Your task to perform on an android device: open app "Pluto TV - Live TV and Movies" (install if not already installed) Image 0: 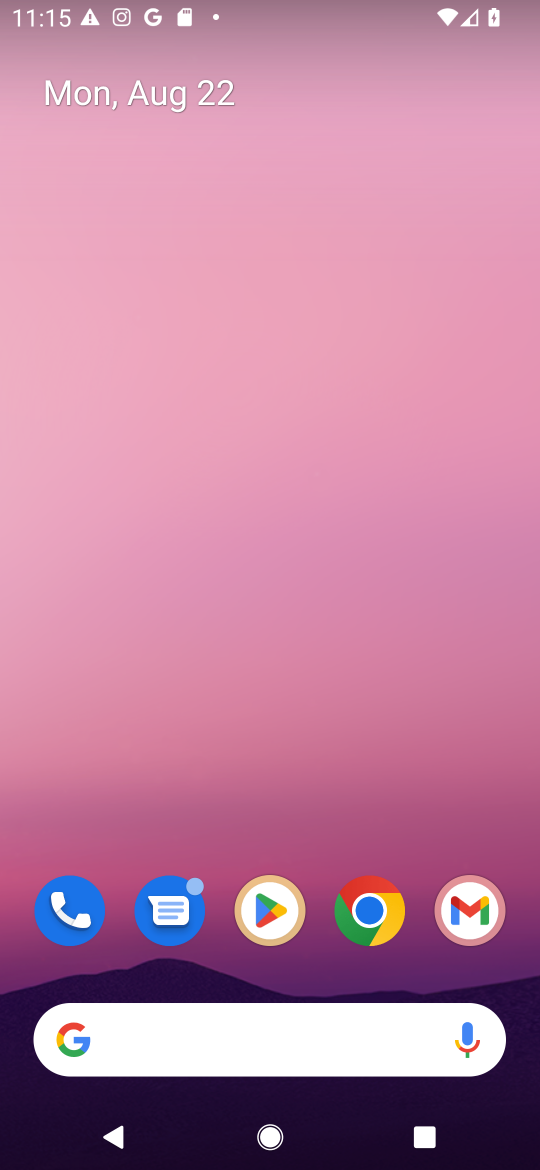
Step 0: click (278, 908)
Your task to perform on an android device: open app "Pluto TV - Live TV and Movies" (install if not already installed) Image 1: 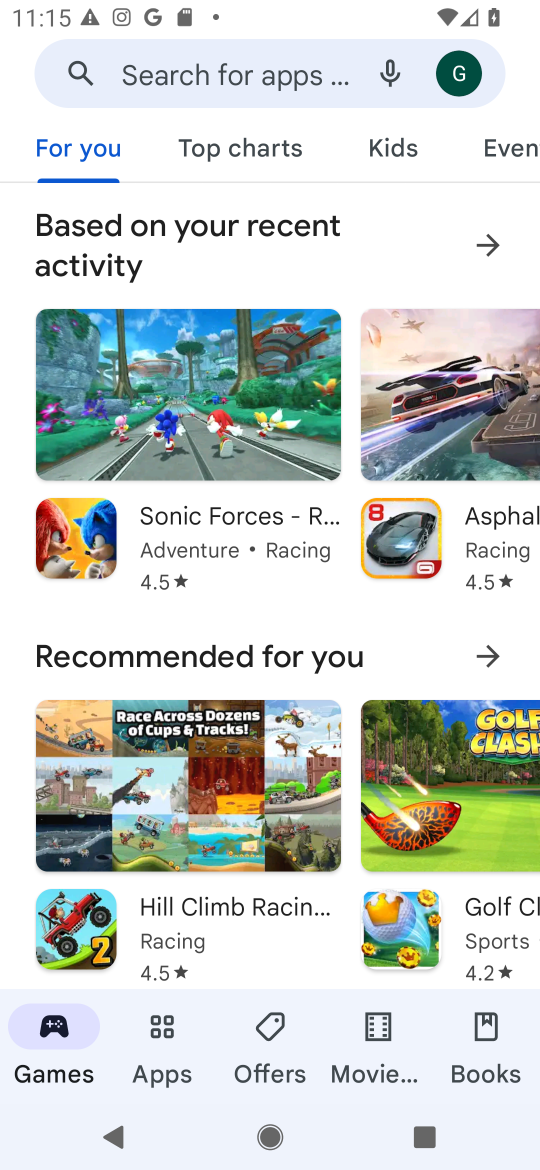
Step 1: click (249, 68)
Your task to perform on an android device: open app "Pluto TV - Live TV and Movies" (install if not already installed) Image 2: 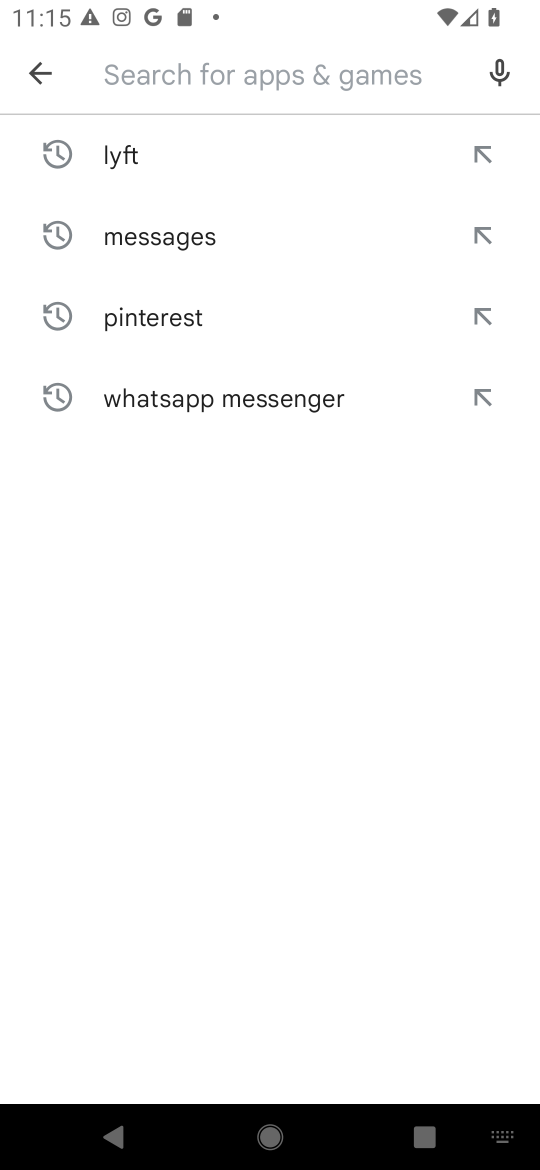
Step 2: type "Pluto TV - Live TV and Movies"
Your task to perform on an android device: open app "Pluto TV - Live TV and Movies" (install if not already installed) Image 3: 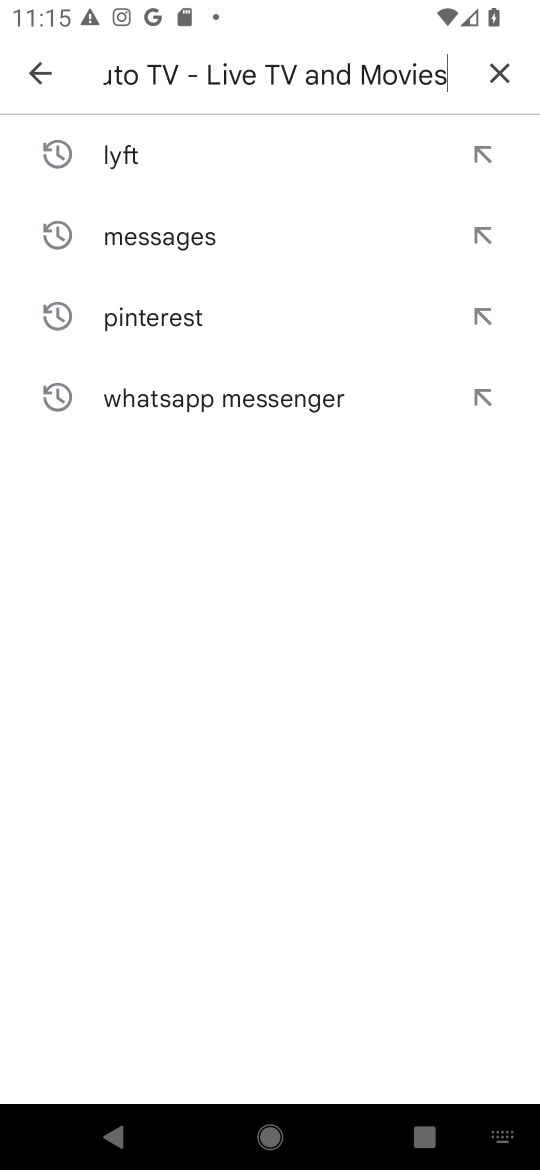
Step 3: type ""
Your task to perform on an android device: open app "Pluto TV - Live TV and Movies" (install if not already installed) Image 4: 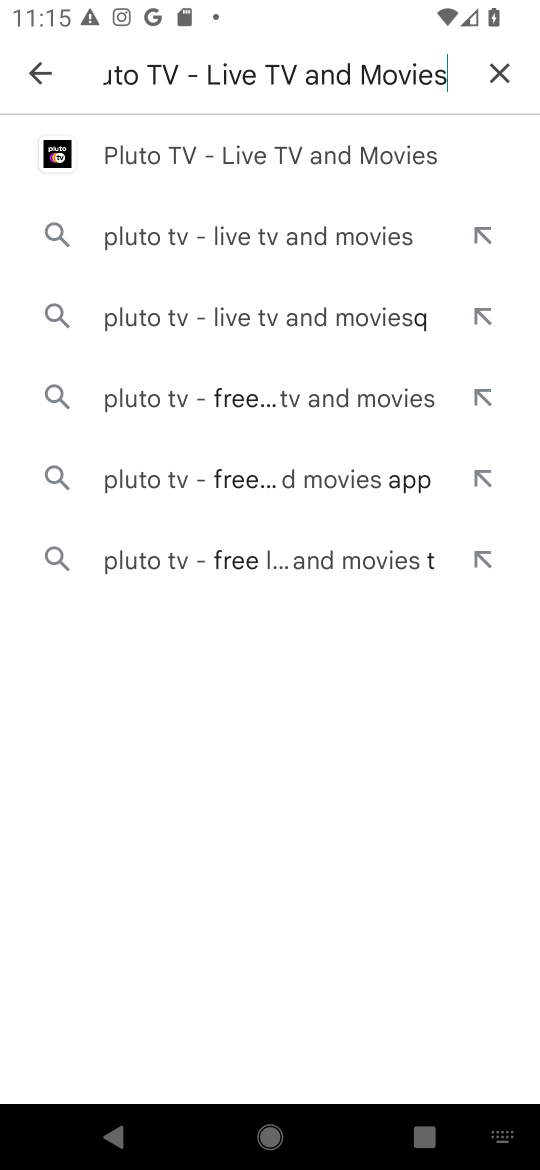
Step 4: click (213, 149)
Your task to perform on an android device: open app "Pluto TV - Live TV and Movies" (install if not already installed) Image 5: 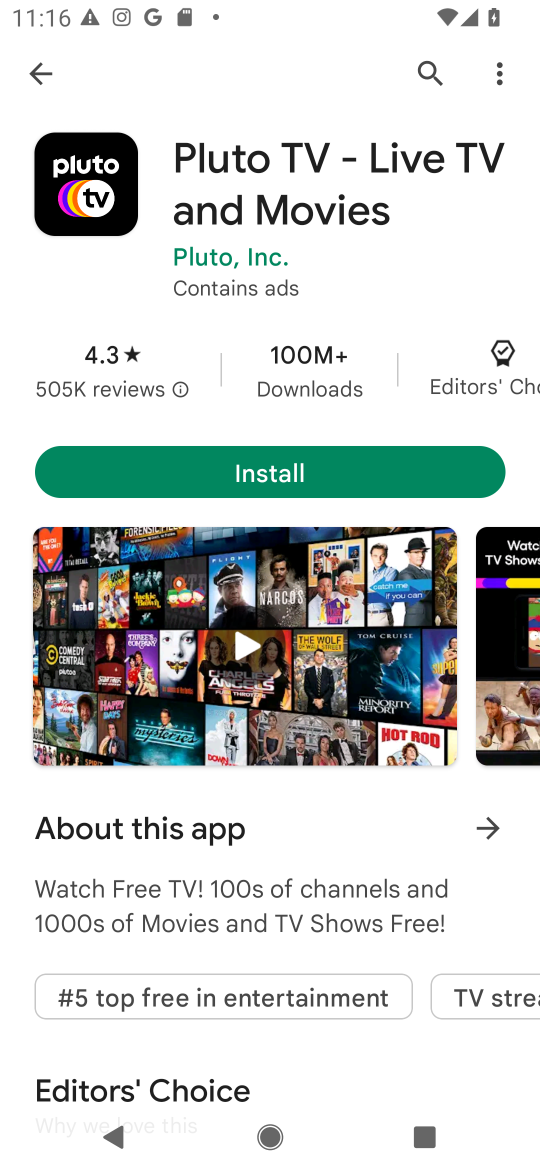
Step 5: click (187, 486)
Your task to perform on an android device: open app "Pluto TV - Live TV and Movies" (install if not already installed) Image 6: 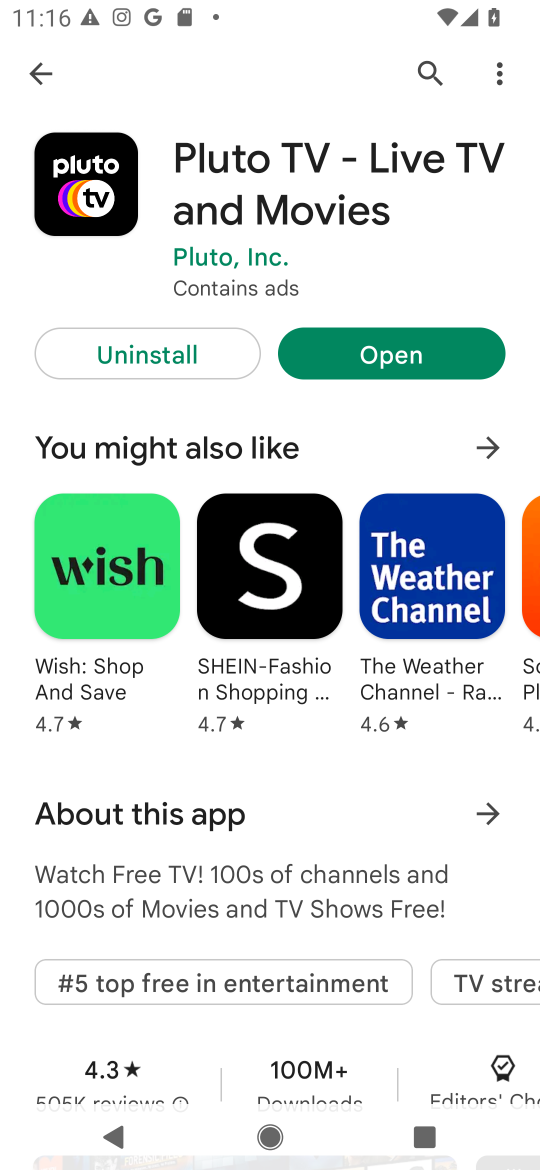
Step 6: click (331, 356)
Your task to perform on an android device: open app "Pluto TV - Live TV and Movies" (install if not already installed) Image 7: 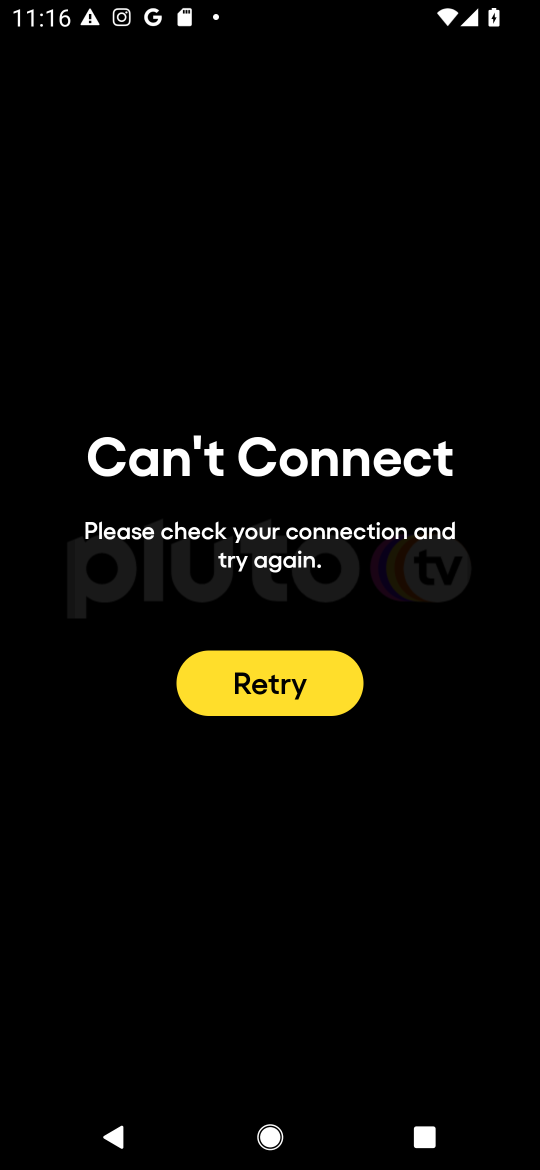
Step 7: task complete